Your task to perform on an android device: add a contact in the contacts app Image 0: 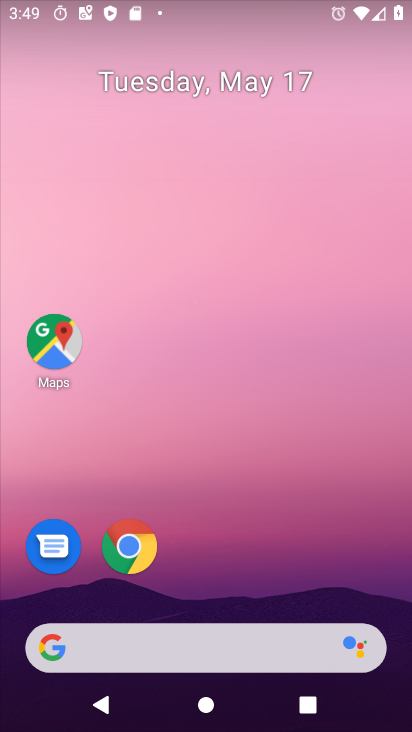
Step 0: drag from (300, 544) to (300, 90)
Your task to perform on an android device: add a contact in the contacts app Image 1: 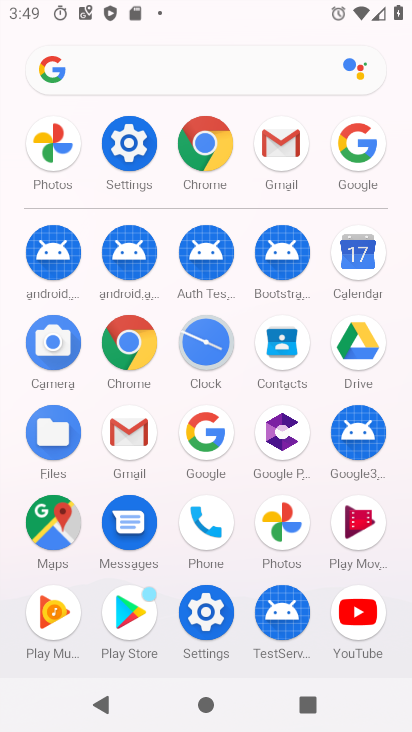
Step 1: click (288, 356)
Your task to perform on an android device: add a contact in the contacts app Image 2: 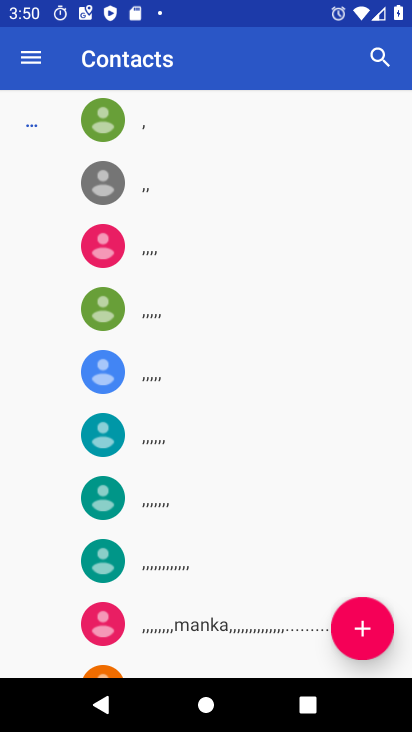
Step 2: click (380, 652)
Your task to perform on an android device: add a contact in the contacts app Image 3: 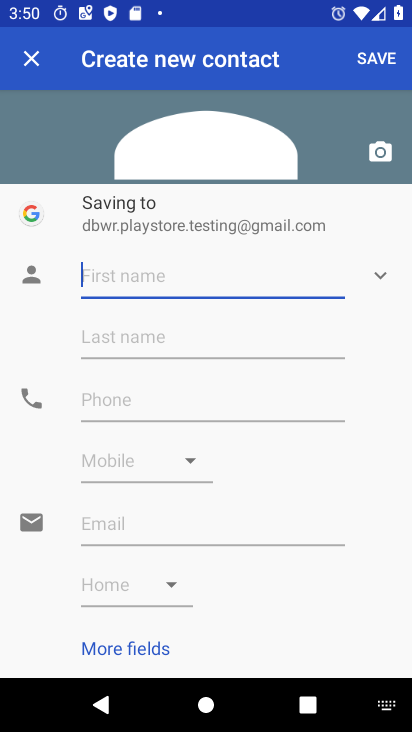
Step 3: type "jhgyufgkg"
Your task to perform on an android device: add a contact in the contacts app Image 4: 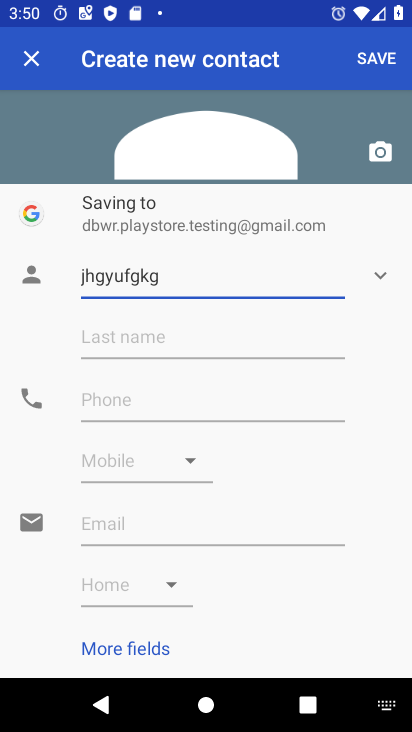
Step 4: click (261, 374)
Your task to perform on an android device: add a contact in the contacts app Image 5: 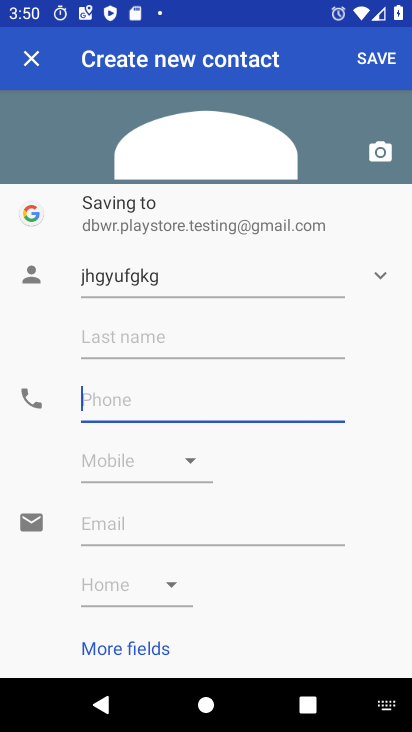
Step 5: type "98675e54w5"
Your task to perform on an android device: add a contact in the contacts app Image 6: 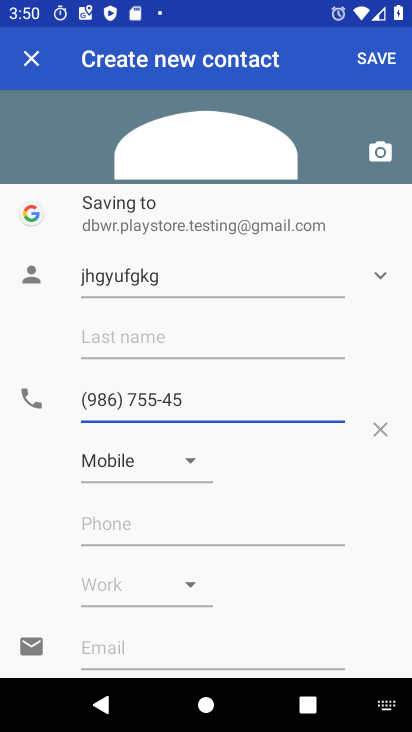
Step 6: click (397, 61)
Your task to perform on an android device: add a contact in the contacts app Image 7: 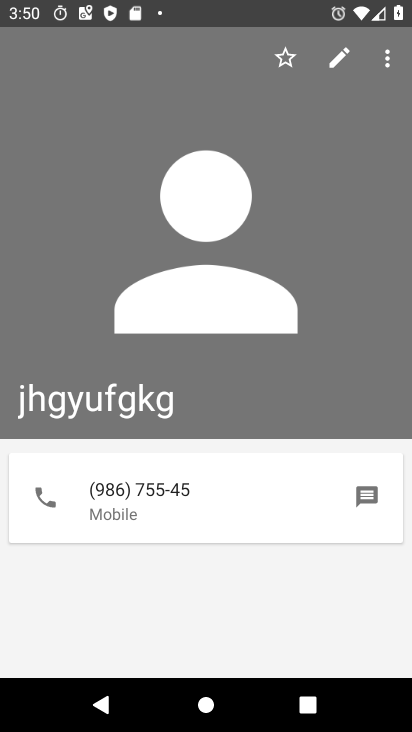
Step 7: task complete